Your task to perform on an android device: Check the news Image 0: 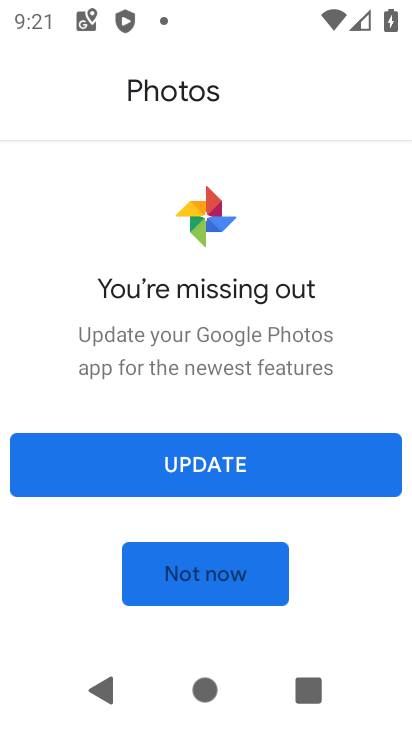
Step 0: press home button
Your task to perform on an android device: Check the news Image 1: 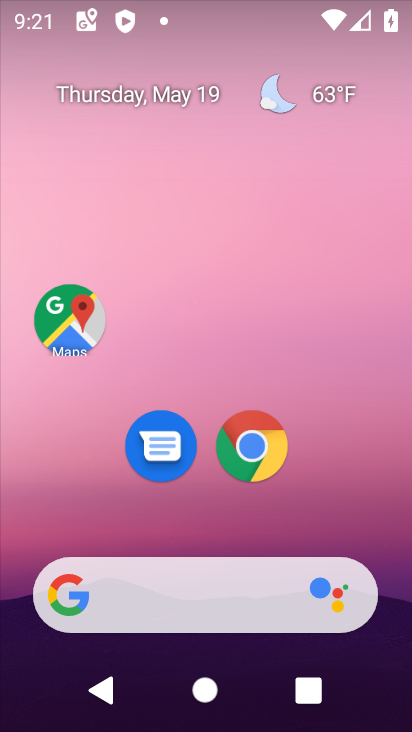
Step 1: drag from (224, 535) to (300, 6)
Your task to perform on an android device: Check the news Image 2: 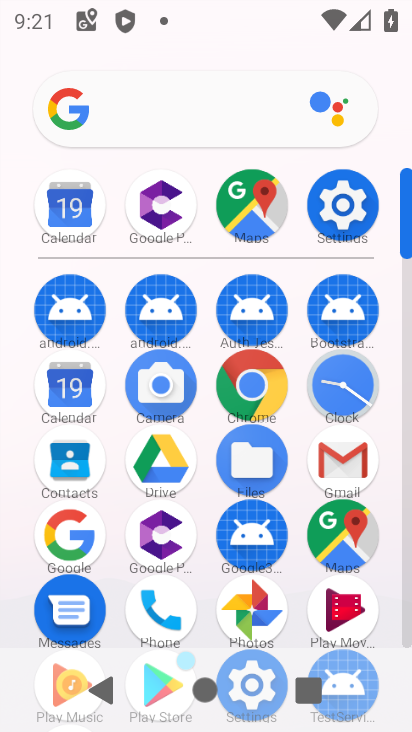
Step 2: click (240, 106)
Your task to perform on an android device: Check the news Image 3: 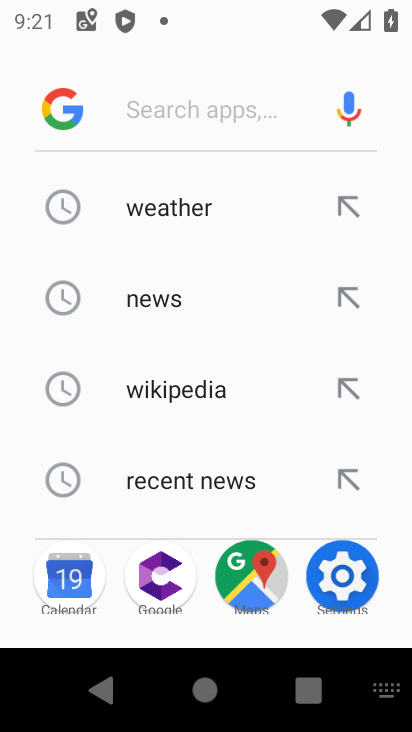
Step 3: type "news"
Your task to perform on an android device: Check the news Image 4: 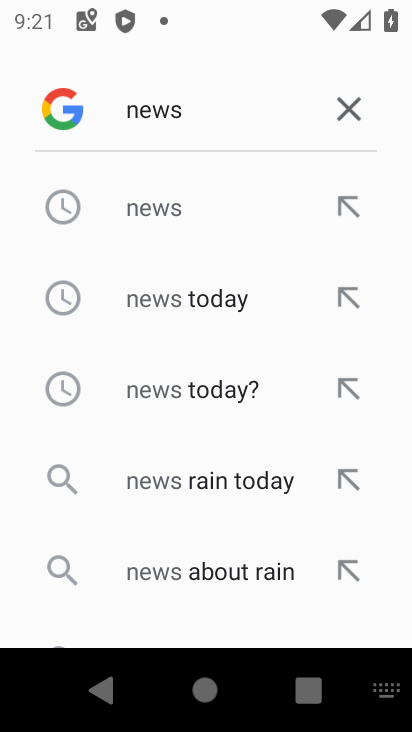
Step 4: click (218, 214)
Your task to perform on an android device: Check the news Image 5: 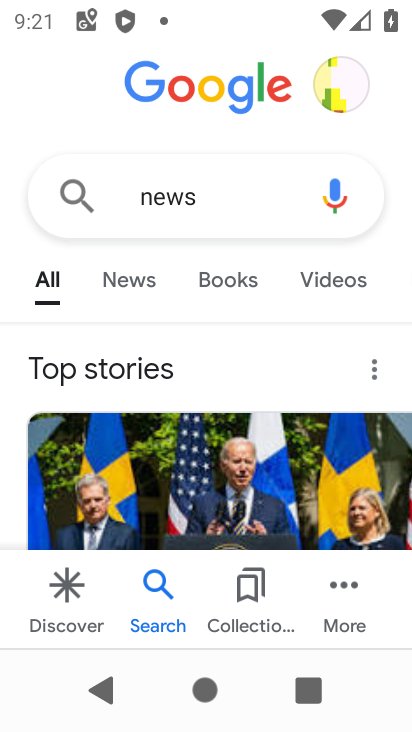
Step 5: task complete